Your task to perform on an android device: Open Chrome and go to settings Image 0: 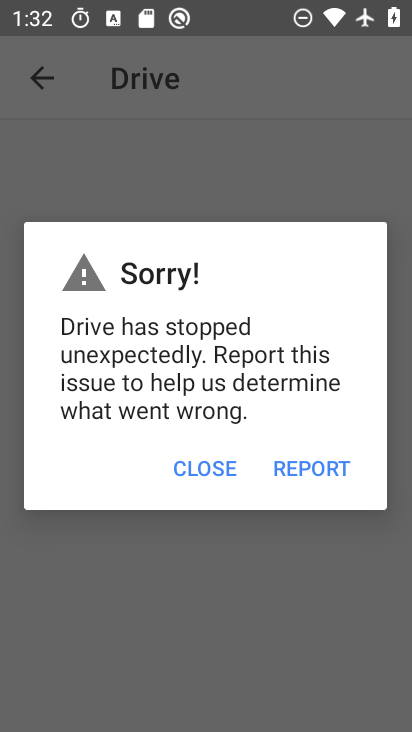
Step 0: press home button
Your task to perform on an android device: Open Chrome and go to settings Image 1: 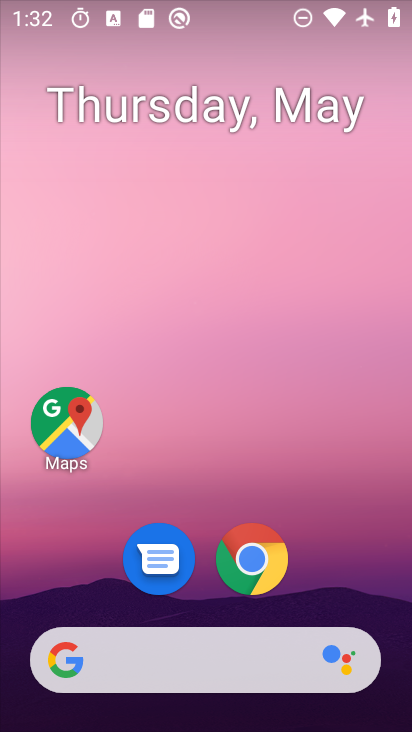
Step 1: drag from (257, 650) to (288, 192)
Your task to perform on an android device: Open Chrome and go to settings Image 2: 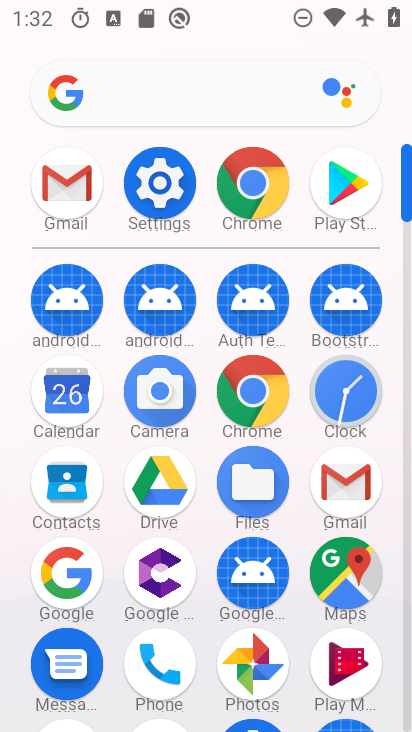
Step 2: click (265, 196)
Your task to perform on an android device: Open Chrome and go to settings Image 3: 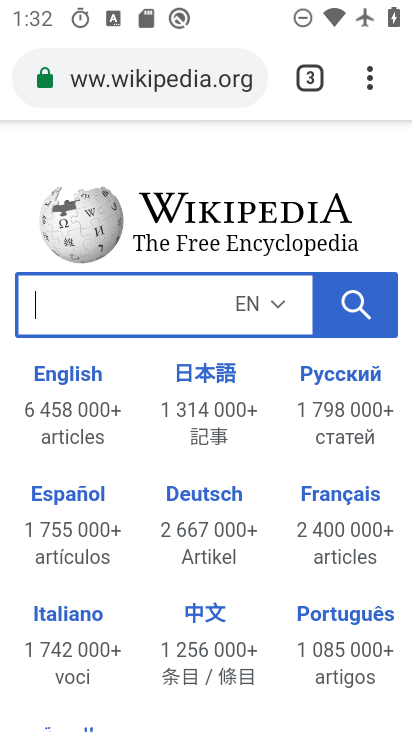
Step 3: click (364, 79)
Your task to perform on an android device: Open Chrome and go to settings Image 4: 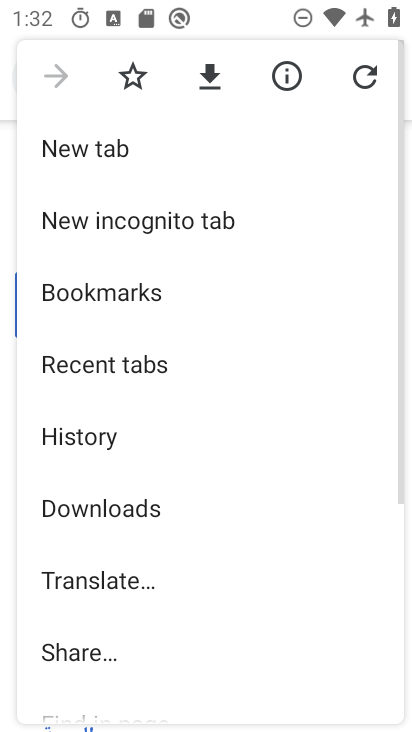
Step 4: drag from (243, 645) to (252, 314)
Your task to perform on an android device: Open Chrome and go to settings Image 5: 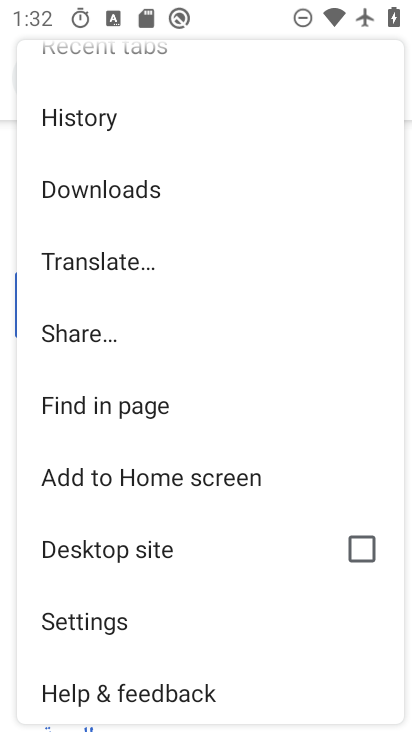
Step 5: click (81, 631)
Your task to perform on an android device: Open Chrome and go to settings Image 6: 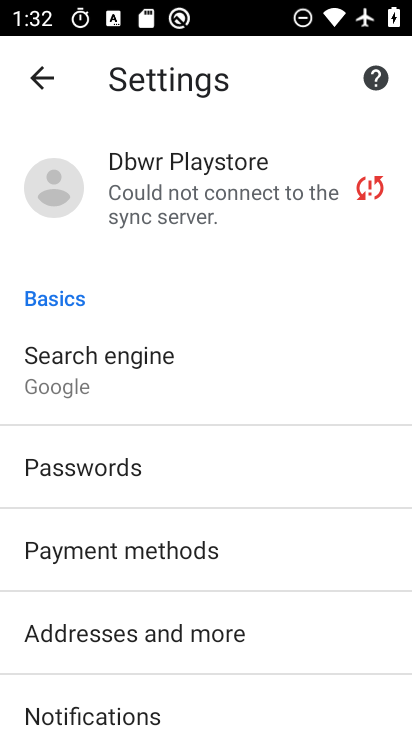
Step 6: task complete